Your task to perform on an android device: toggle javascript in the chrome app Image 0: 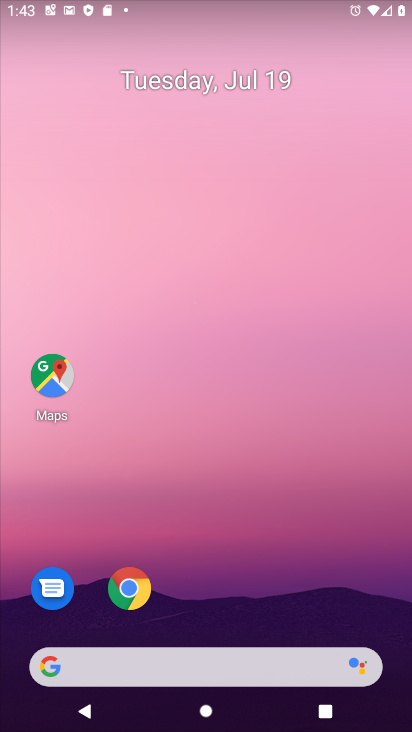
Step 0: drag from (358, 626) to (156, 45)
Your task to perform on an android device: toggle javascript in the chrome app Image 1: 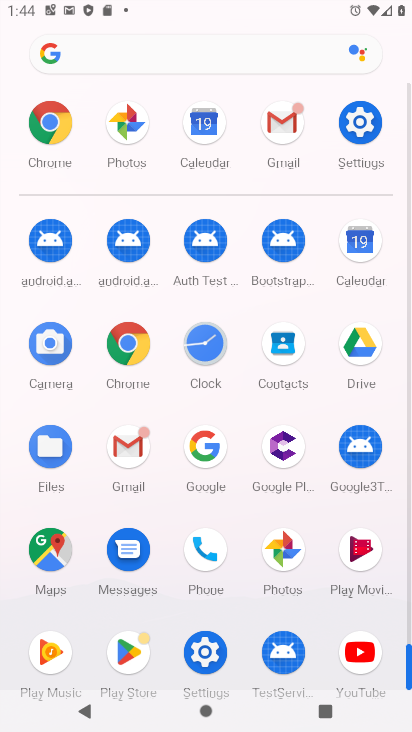
Step 1: click (117, 332)
Your task to perform on an android device: toggle javascript in the chrome app Image 2: 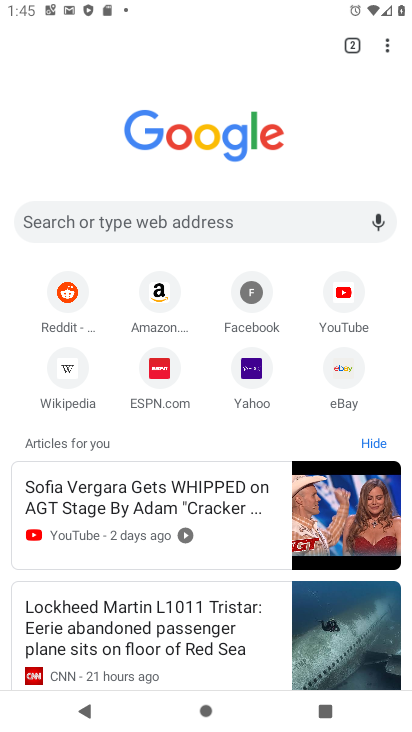
Step 2: click (387, 40)
Your task to perform on an android device: toggle javascript in the chrome app Image 3: 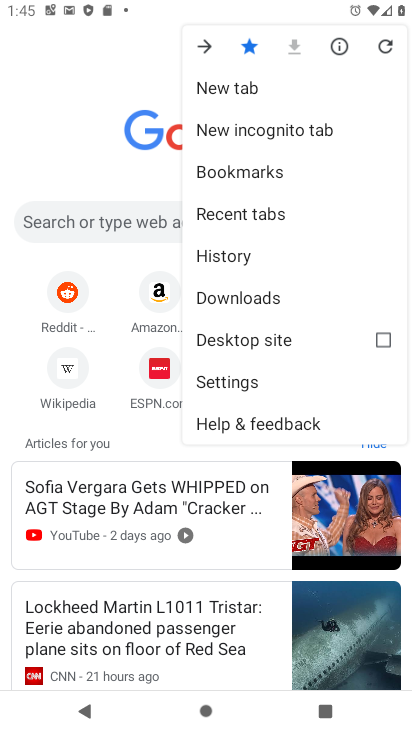
Step 3: click (222, 386)
Your task to perform on an android device: toggle javascript in the chrome app Image 4: 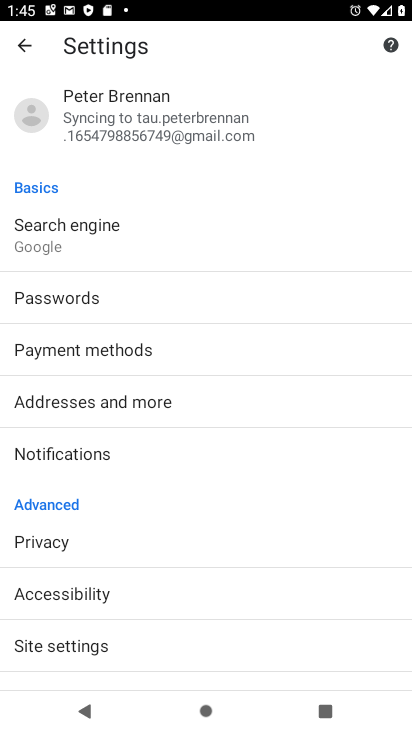
Step 4: click (89, 638)
Your task to perform on an android device: toggle javascript in the chrome app Image 5: 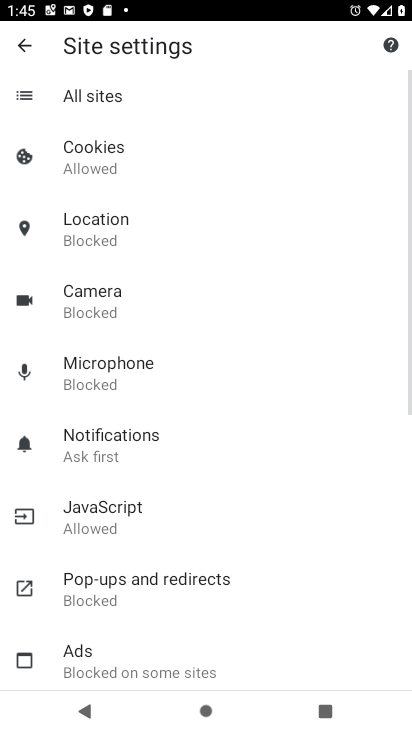
Step 5: click (110, 501)
Your task to perform on an android device: toggle javascript in the chrome app Image 6: 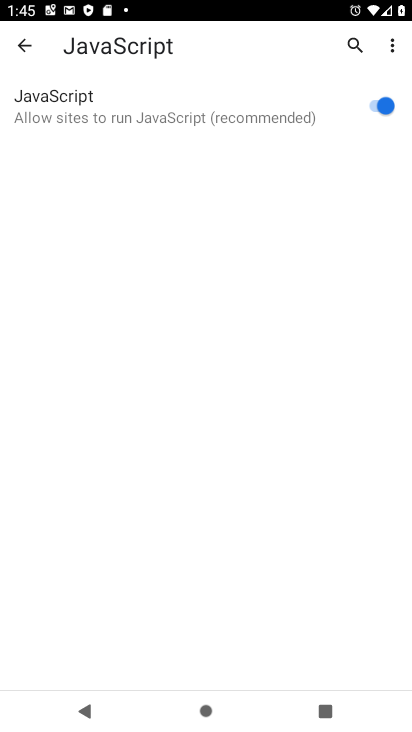
Step 6: click (349, 91)
Your task to perform on an android device: toggle javascript in the chrome app Image 7: 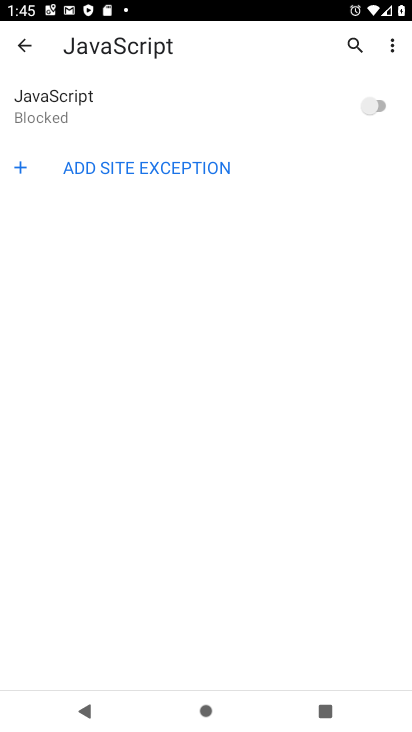
Step 7: task complete